Your task to perform on an android device: Go to Amazon Image 0: 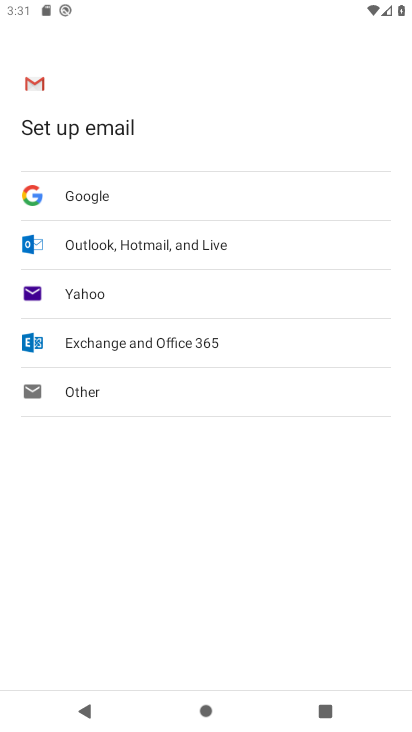
Step 0: press home button
Your task to perform on an android device: Go to Amazon Image 1: 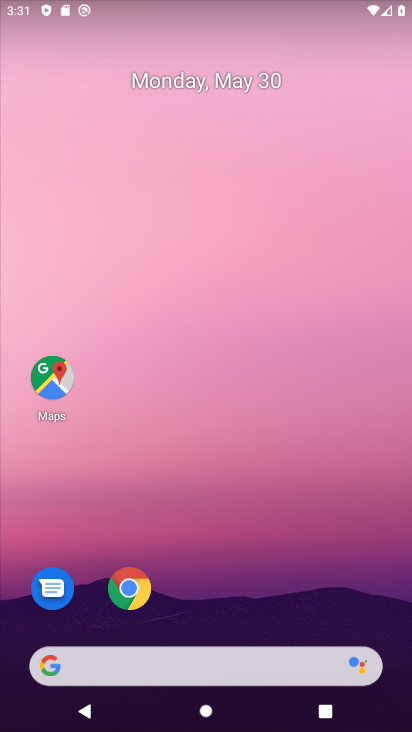
Step 1: click (127, 580)
Your task to perform on an android device: Go to Amazon Image 2: 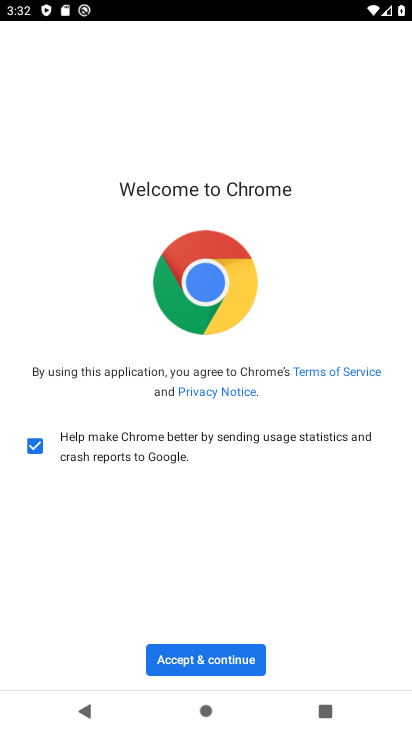
Step 2: click (202, 655)
Your task to perform on an android device: Go to Amazon Image 3: 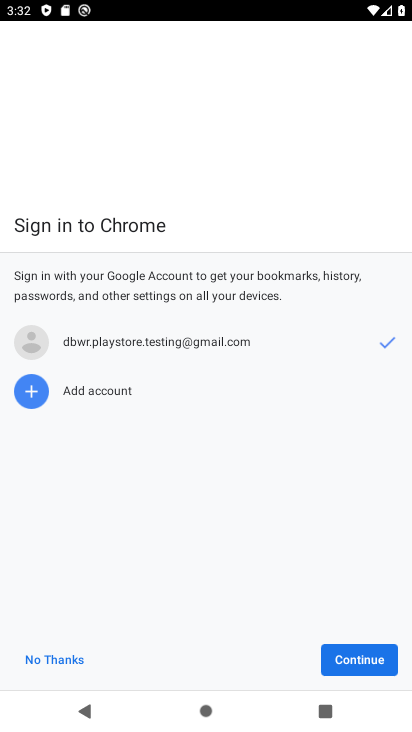
Step 3: click (351, 644)
Your task to perform on an android device: Go to Amazon Image 4: 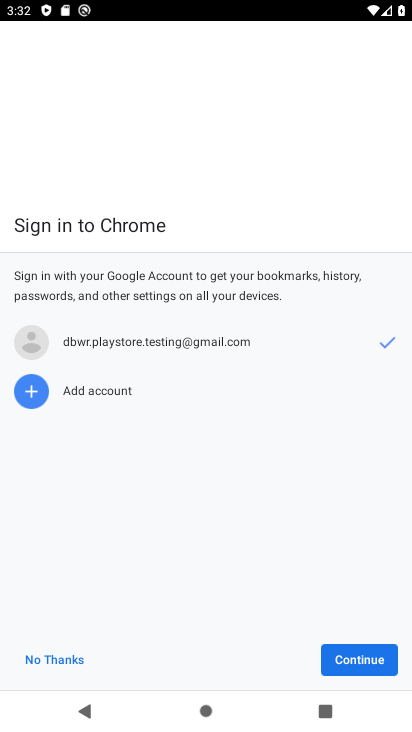
Step 4: click (358, 655)
Your task to perform on an android device: Go to Amazon Image 5: 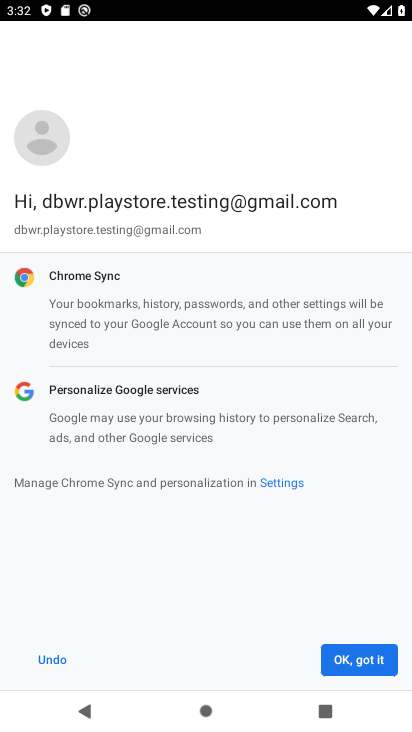
Step 5: click (358, 655)
Your task to perform on an android device: Go to Amazon Image 6: 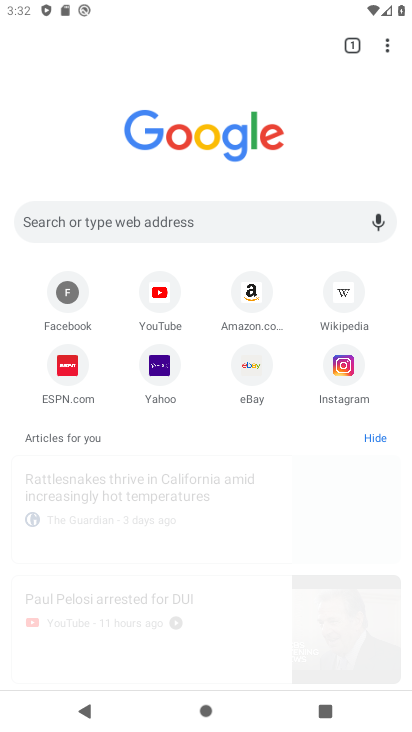
Step 6: click (246, 287)
Your task to perform on an android device: Go to Amazon Image 7: 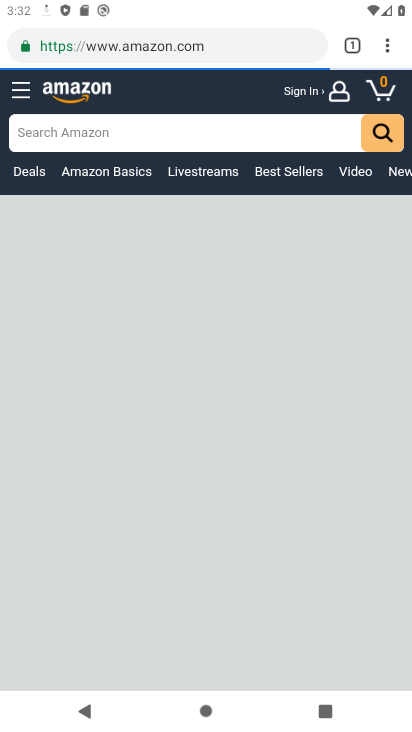
Step 7: task complete